Your task to perform on an android device: Search for the best websites on the internet Image 0: 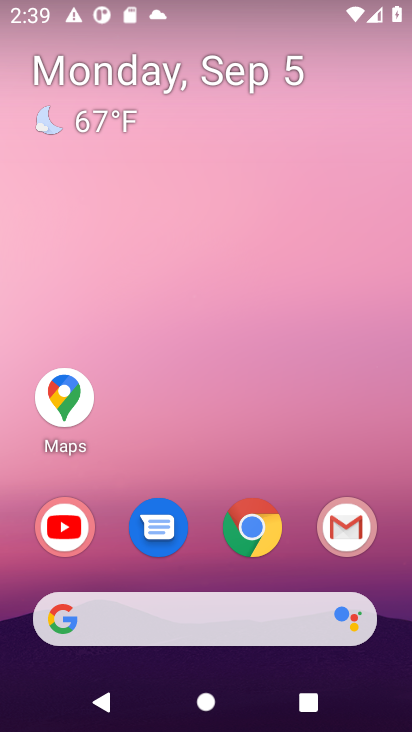
Step 0: press home button
Your task to perform on an android device: Search for the best websites on the internet Image 1: 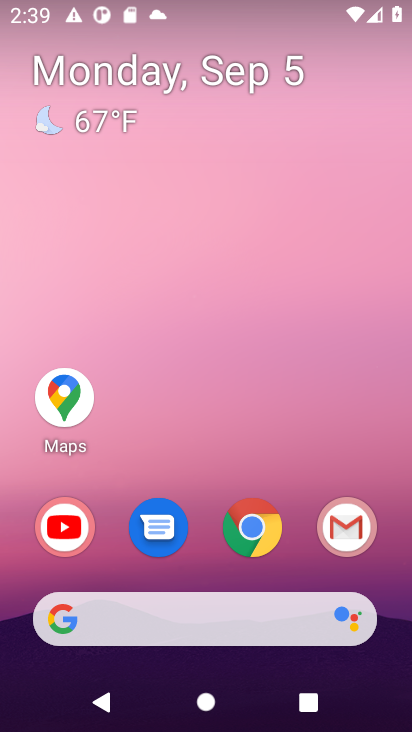
Step 1: click (269, 527)
Your task to perform on an android device: Search for the best websites on the internet Image 2: 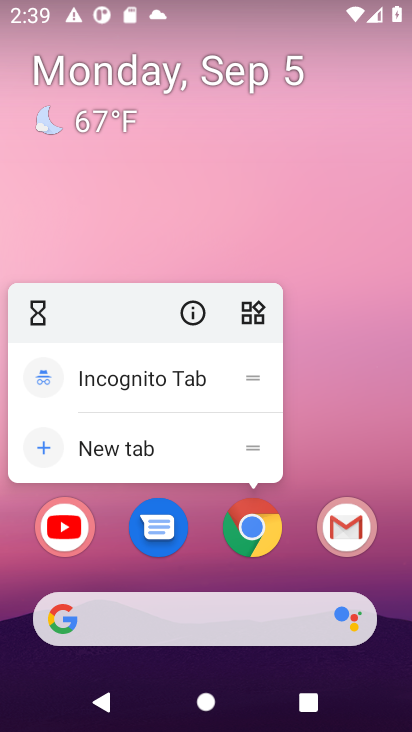
Step 2: click (267, 527)
Your task to perform on an android device: Search for the best websites on the internet Image 3: 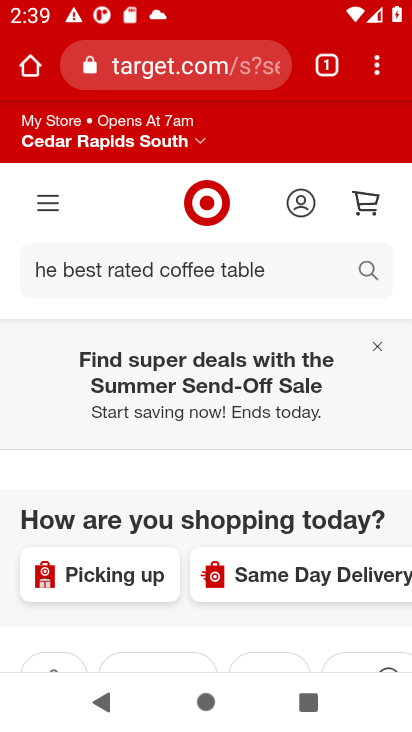
Step 3: click (184, 67)
Your task to perform on an android device: Search for the best websites on the internet Image 4: 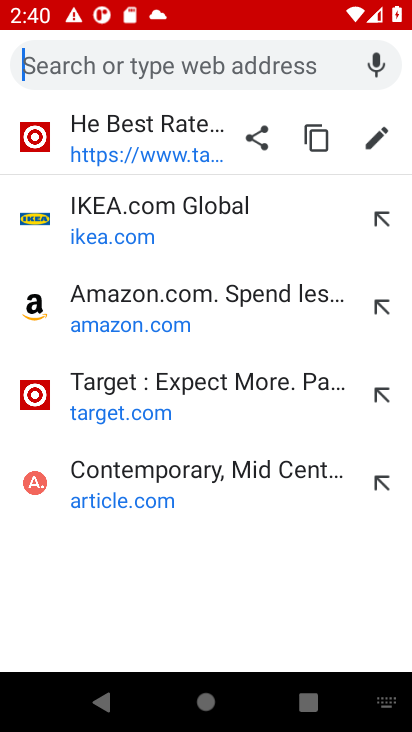
Step 4: type " the best websites on the internet"
Your task to perform on an android device: Search for the best websites on the internet Image 5: 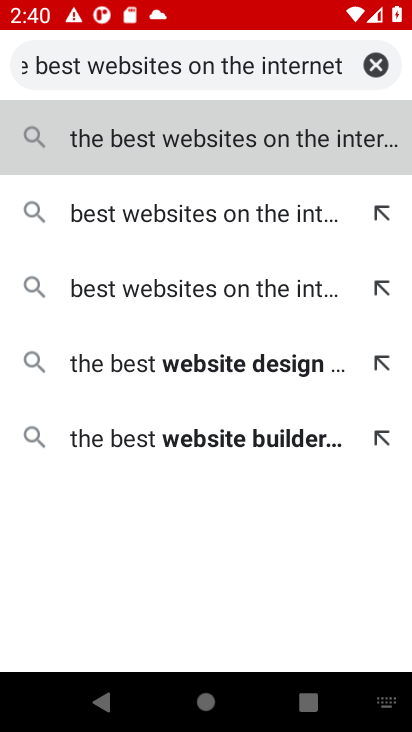
Step 5: click (337, 141)
Your task to perform on an android device: Search for the best websites on the internet Image 6: 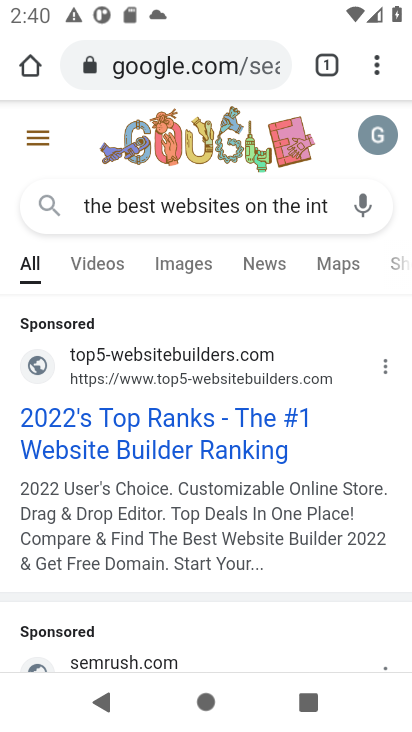
Step 6: task complete